Your task to perform on an android device: turn off notifications settings in the gmail app Image 0: 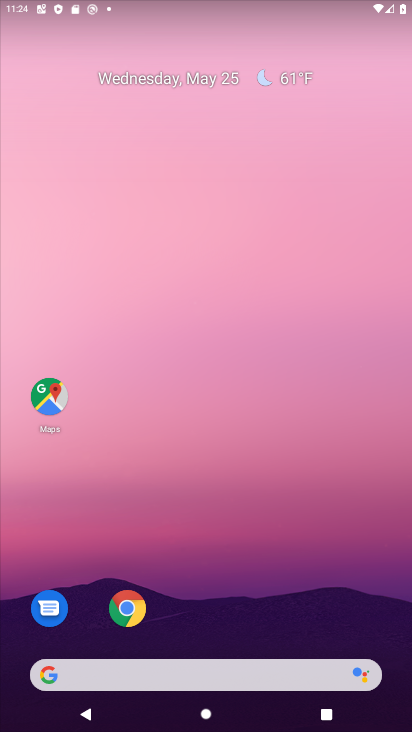
Step 0: drag from (216, 487) to (265, 97)
Your task to perform on an android device: turn off notifications settings in the gmail app Image 1: 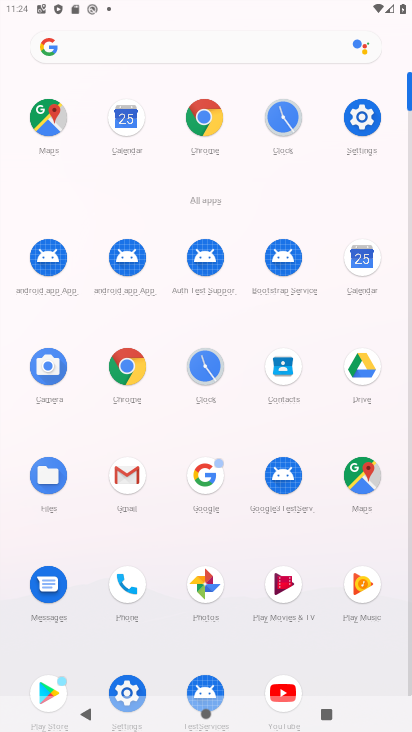
Step 1: click (126, 476)
Your task to perform on an android device: turn off notifications settings in the gmail app Image 2: 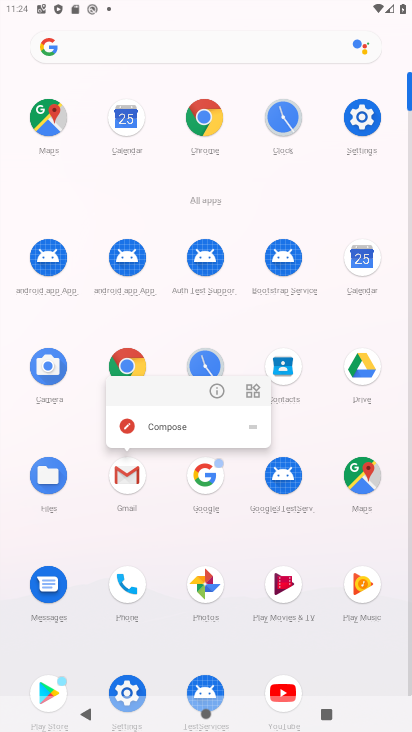
Step 2: click (213, 394)
Your task to perform on an android device: turn off notifications settings in the gmail app Image 3: 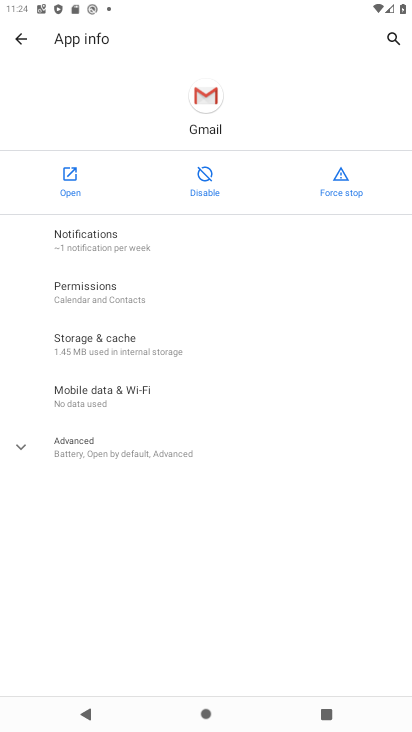
Step 3: click (105, 234)
Your task to perform on an android device: turn off notifications settings in the gmail app Image 4: 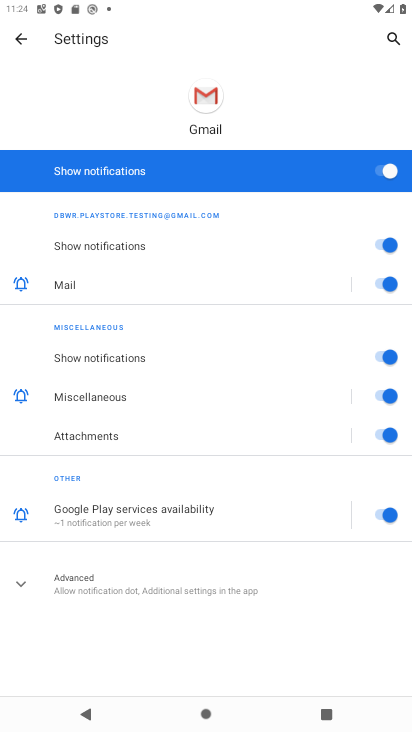
Step 4: click (393, 169)
Your task to perform on an android device: turn off notifications settings in the gmail app Image 5: 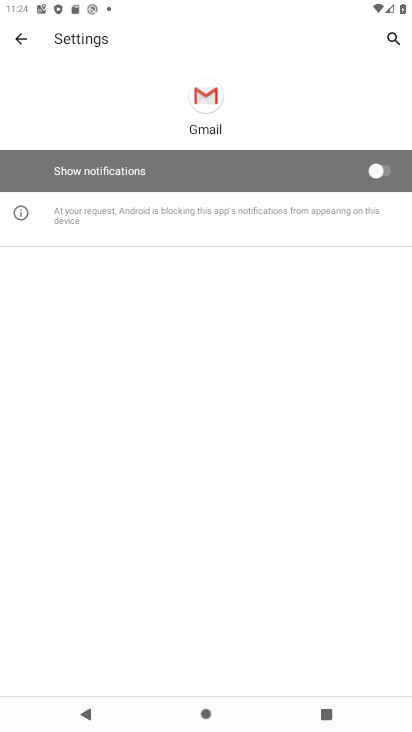
Step 5: task complete